Your task to perform on an android device: turn off location Image 0: 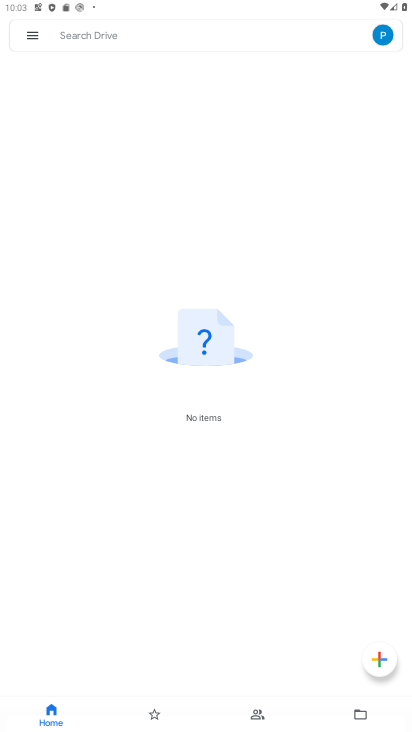
Step 0: press home button
Your task to perform on an android device: turn off location Image 1: 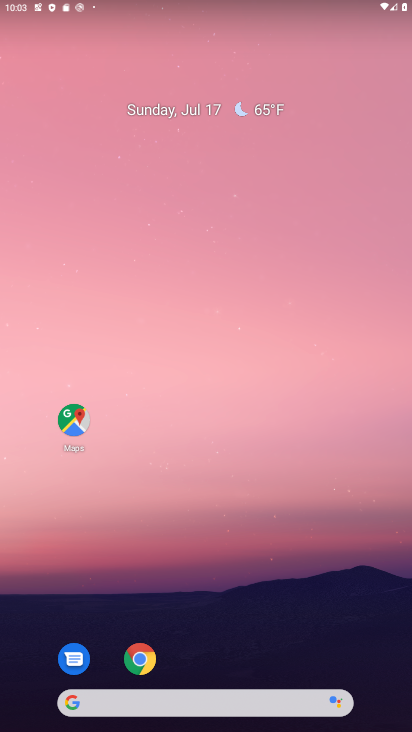
Step 1: drag from (227, 668) to (257, 144)
Your task to perform on an android device: turn off location Image 2: 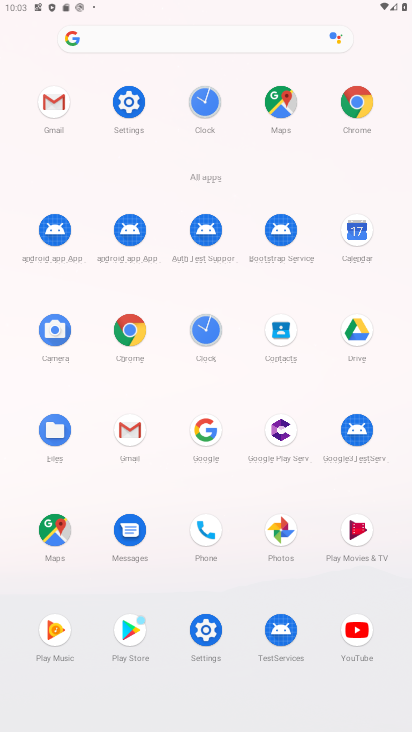
Step 2: click (113, 111)
Your task to perform on an android device: turn off location Image 3: 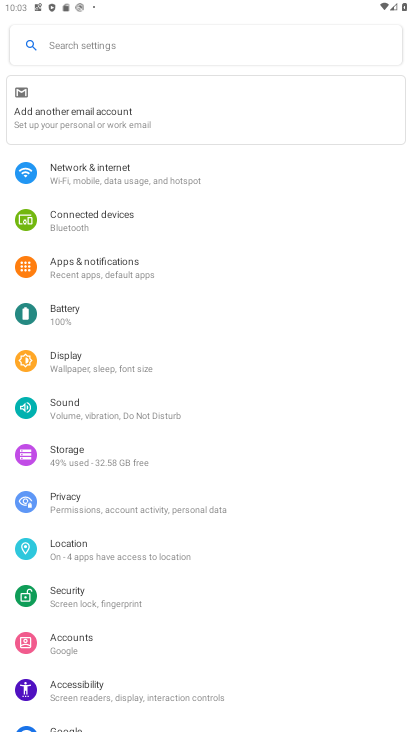
Step 3: click (151, 561)
Your task to perform on an android device: turn off location Image 4: 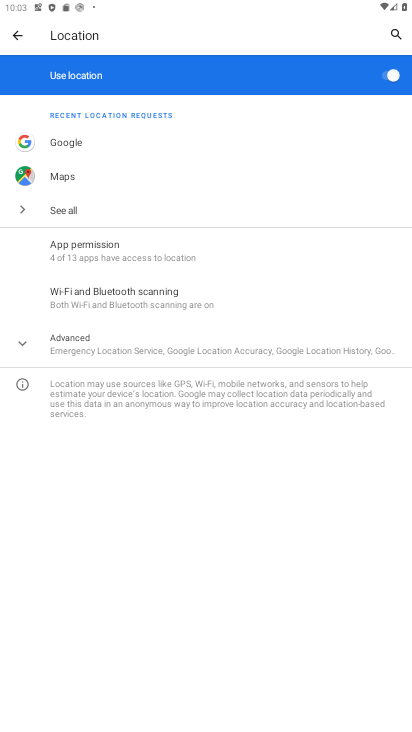
Step 4: click (383, 80)
Your task to perform on an android device: turn off location Image 5: 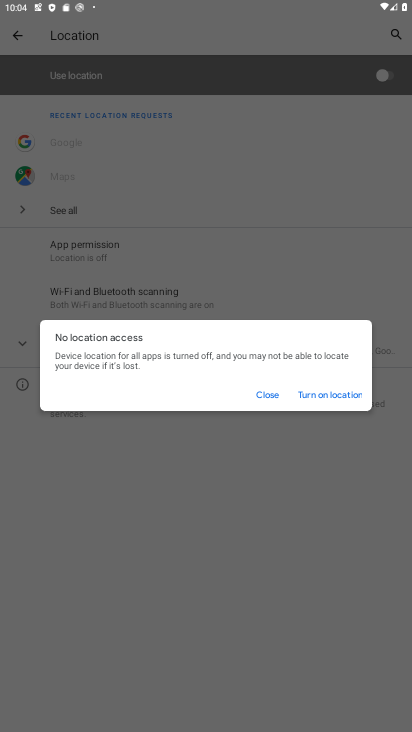
Step 5: task complete